Your task to perform on an android device: Open Maps and search for coffee Image 0: 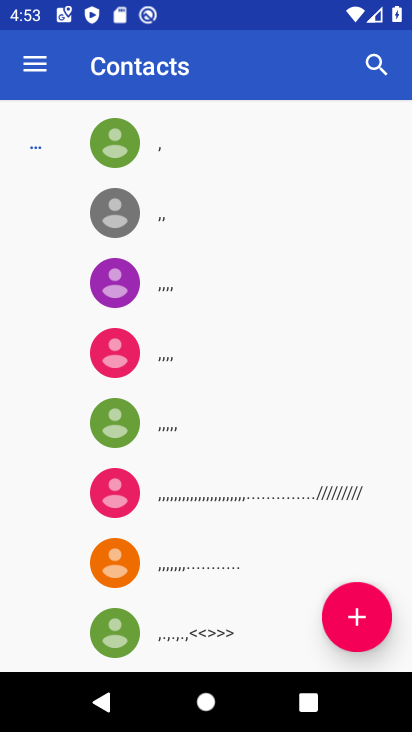
Step 0: press home button
Your task to perform on an android device: Open Maps and search for coffee Image 1: 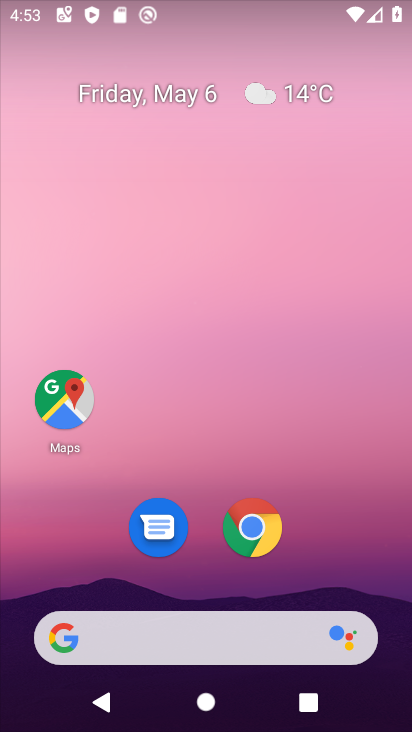
Step 1: drag from (338, 585) to (338, 180)
Your task to perform on an android device: Open Maps and search for coffee Image 2: 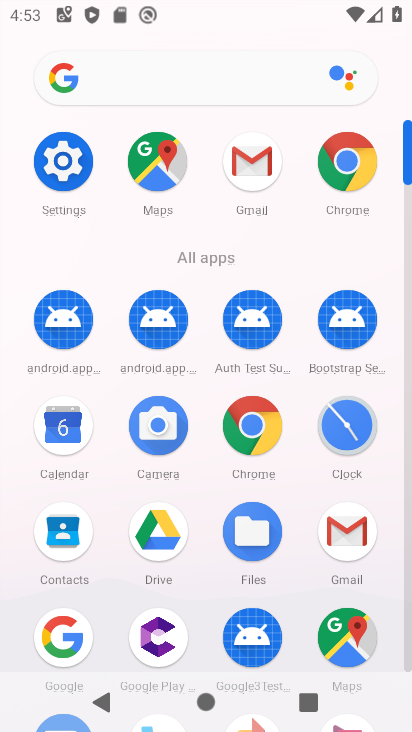
Step 2: click (361, 616)
Your task to perform on an android device: Open Maps and search for coffee Image 3: 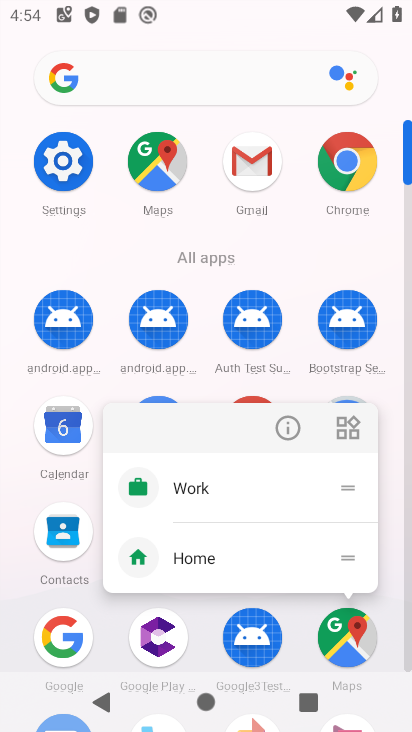
Step 3: click (176, 161)
Your task to perform on an android device: Open Maps and search for coffee Image 4: 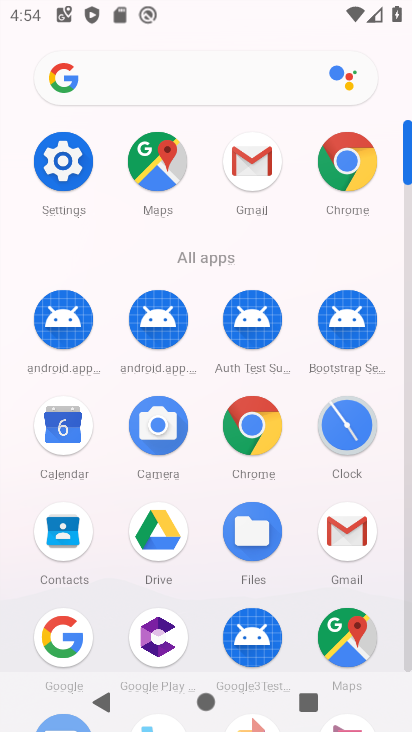
Step 4: click (158, 160)
Your task to perform on an android device: Open Maps and search for coffee Image 5: 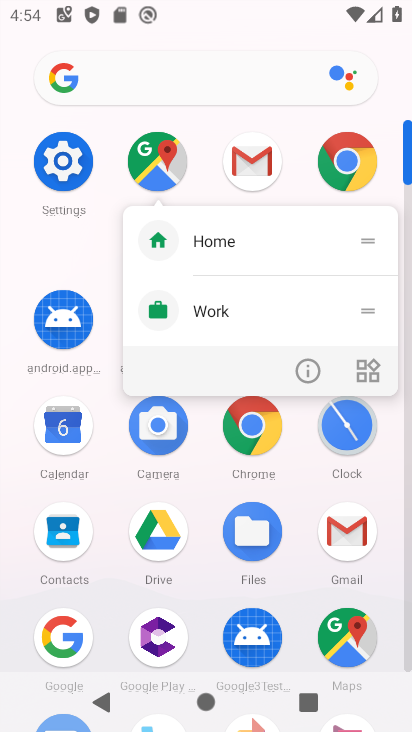
Step 5: click (158, 161)
Your task to perform on an android device: Open Maps and search for coffee Image 6: 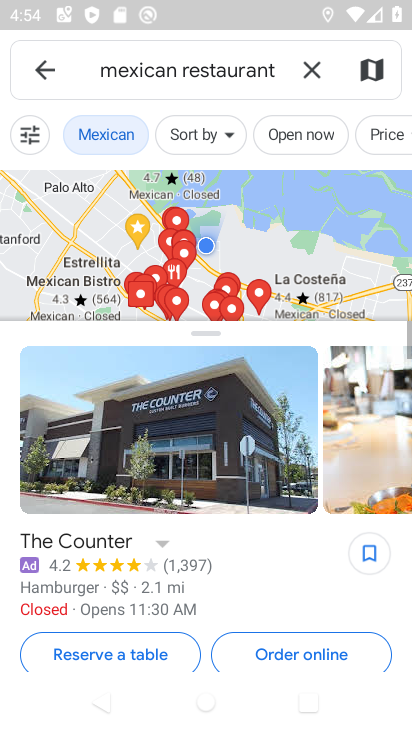
Step 6: click (304, 66)
Your task to perform on an android device: Open Maps and search for coffee Image 7: 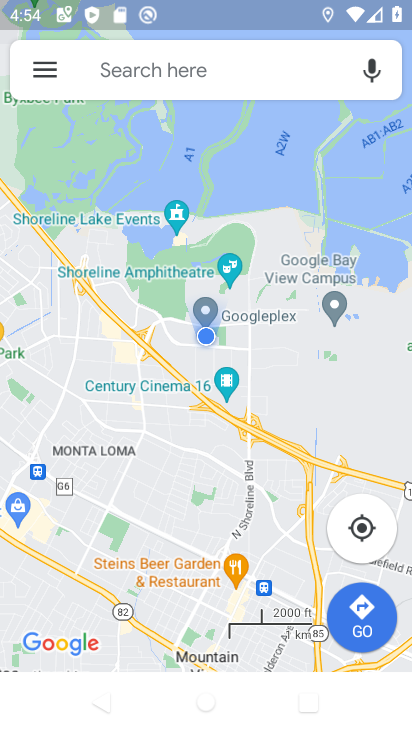
Step 7: click (295, 71)
Your task to perform on an android device: Open Maps and search for coffee Image 8: 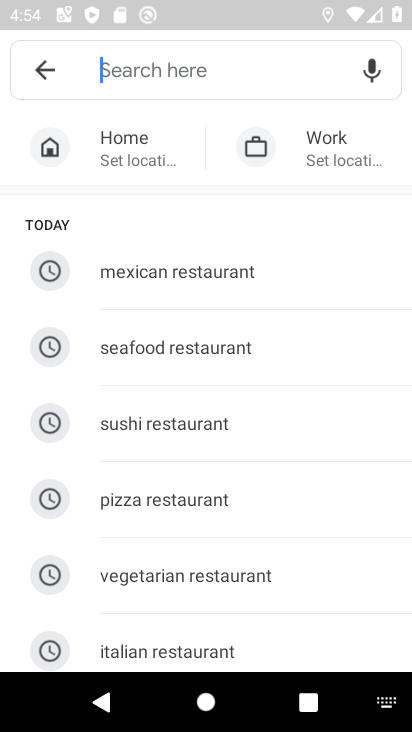
Step 8: drag from (208, 598) to (206, 188)
Your task to perform on an android device: Open Maps and search for coffee Image 9: 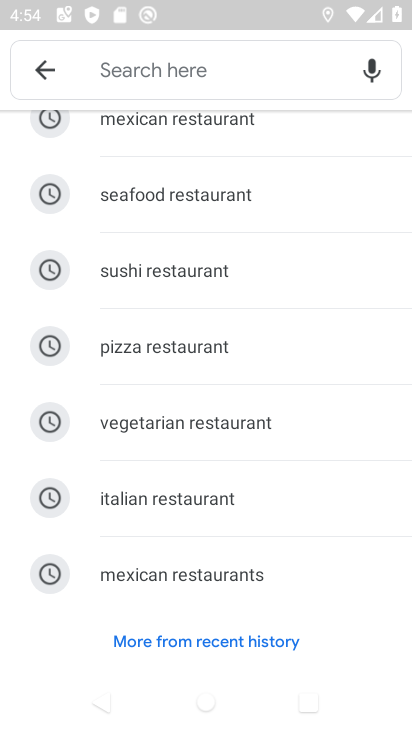
Step 9: type "coffee"
Your task to perform on an android device: Open Maps and search for coffee Image 10: 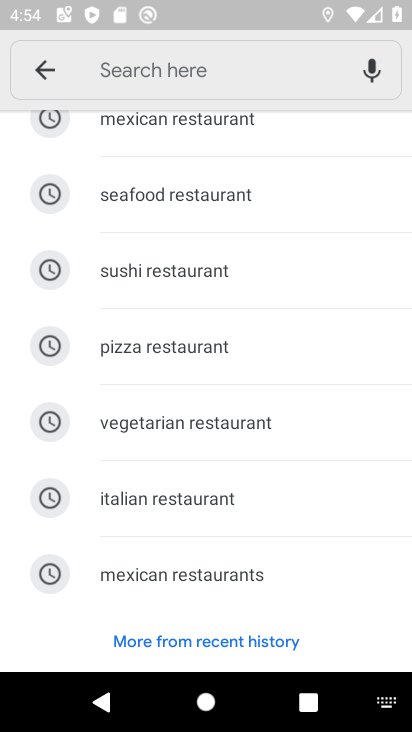
Step 10: drag from (309, 267) to (292, 571)
Your task to perform on an android device: Open Maps and search for coffee Image 11: 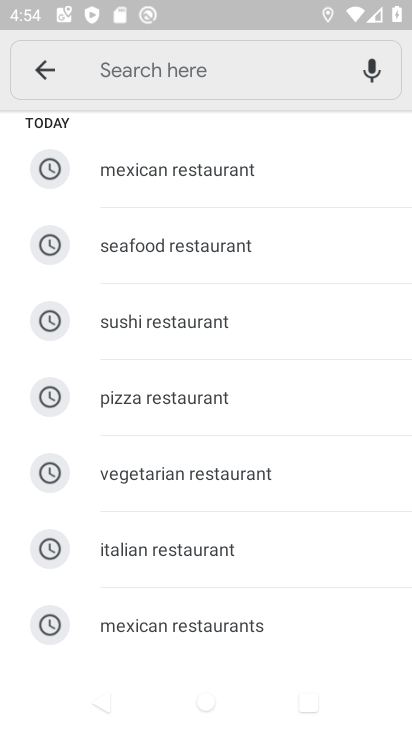
Step 11: drag from (266, 241) to (232, 648)
Your task to perform on an android device: Open Maps and search for coffee Image 12: 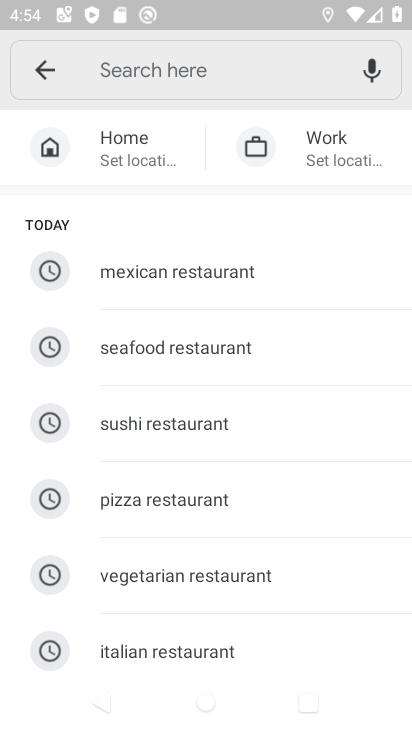
Step 12: click (174, 65)
Your task to perform on an android device: Open Maps and search for coffee Image 13: 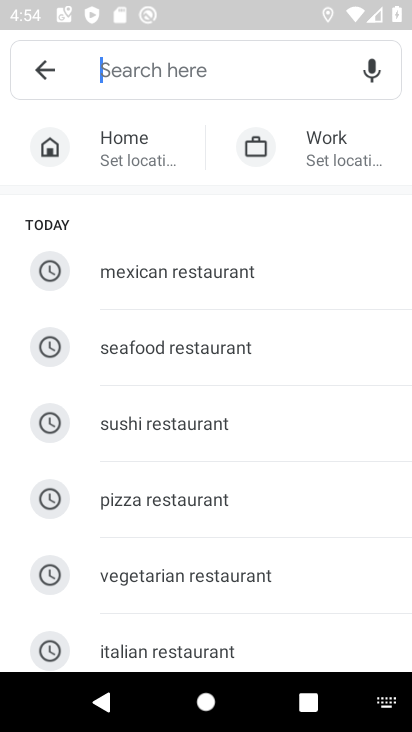
Step 13: type "coffee"
Your task to perform on an android device: Open Maps and search for coffee Image 14: 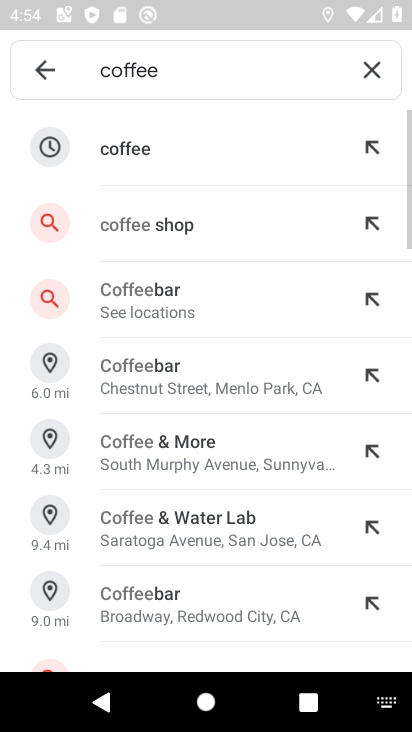
Step 14: click (155, 150)
Your task to perform on an android device: Open Maps and search for coffee Image 15: 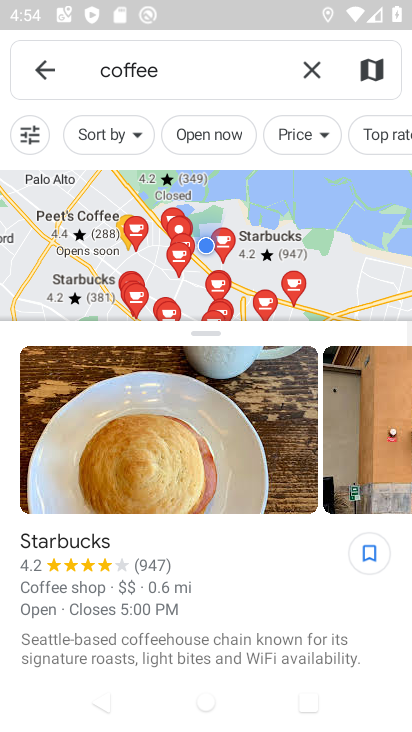
Step 15: task complete